Your task to perform on an android device: Open Google Chrome Image 0: 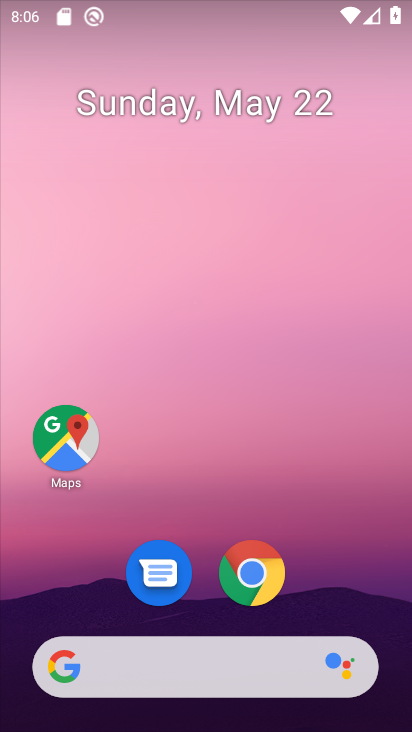
Step 0: click (330, 59)
Your task to perform on an android device: Open Google Chrome Image 1: 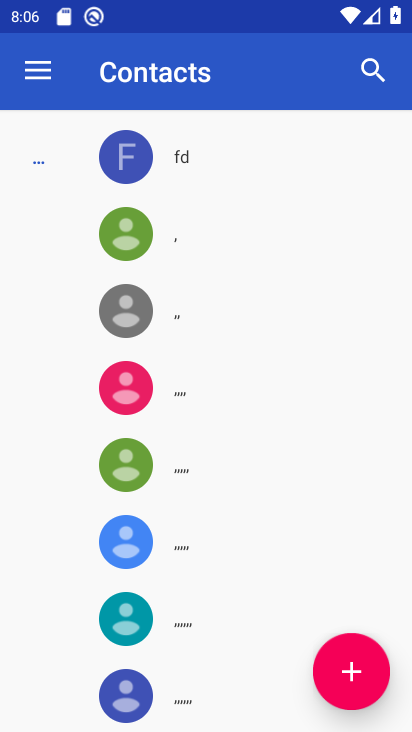
Step 1: press home button
Your task to perform on an android device: Open Google Chrome Image 2: 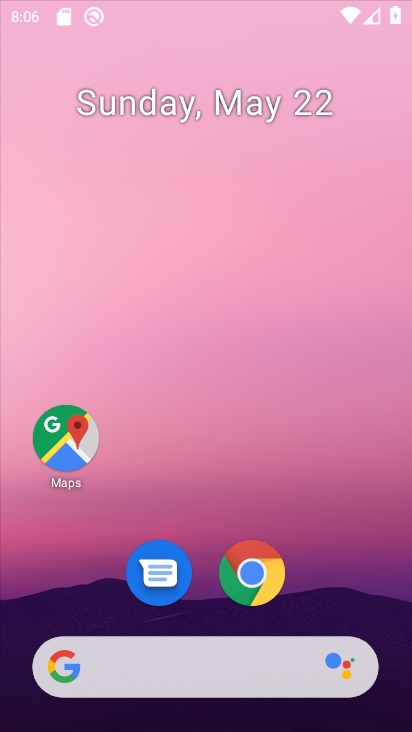
Step 2: drag from (205, 675) to (238, 114)
Your task to perform on an android device: Open Google Chrome Image 3: 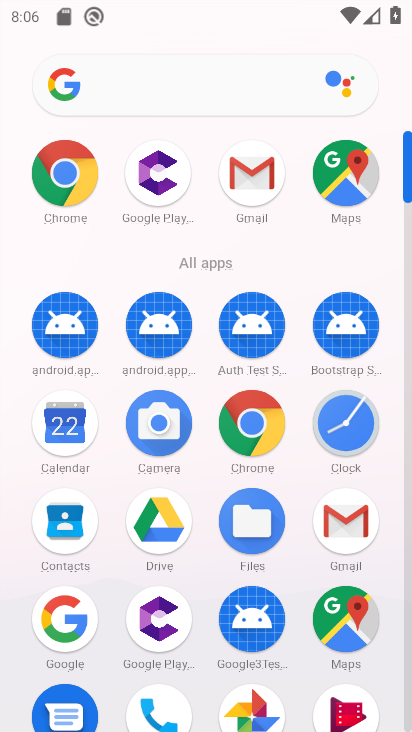
Step 3: click (245, 415)
Your task to perform on an android device: Open Google Chrome Image 4: 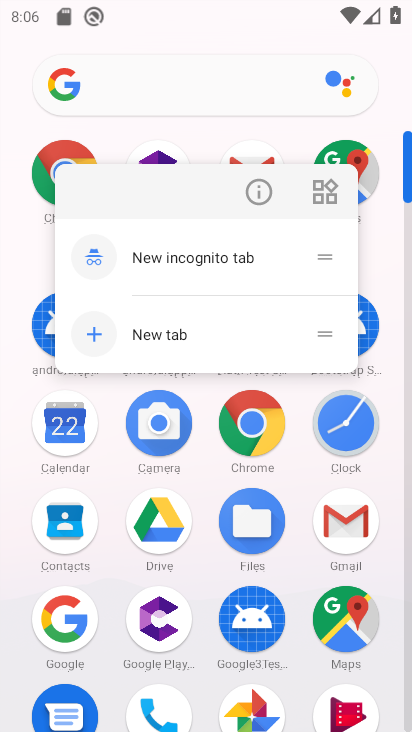
Step 4: click (251, 184)
Your task to perform on an android device: Open Google Chrome Image 5: 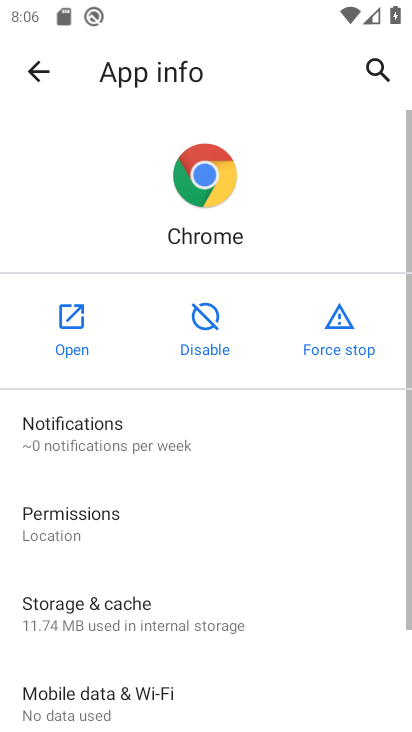
Step 5: click (79, 332)
Your task to perform on an android device: Open Google Chrome Image 6: 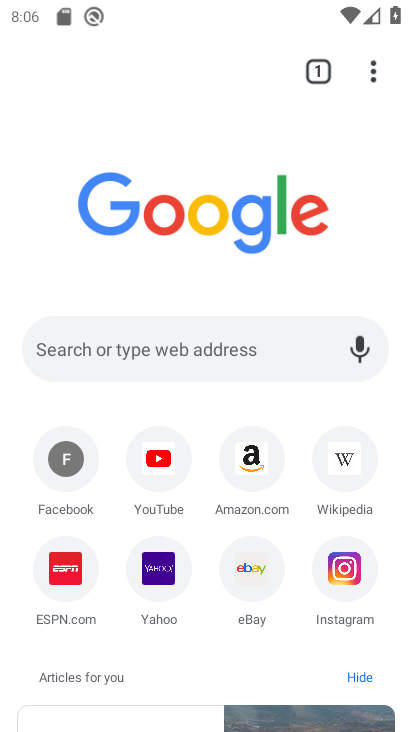
Step 6: click (373, 83)
Your task to perform on an android device: Open Google Chrome Image 7: 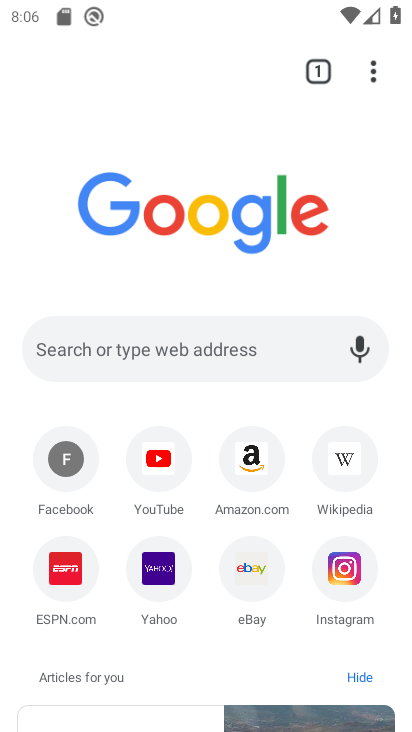
Step 7: task complete